Your task to perform on an android device: turn off priority inbox in the gmail app Image 0: 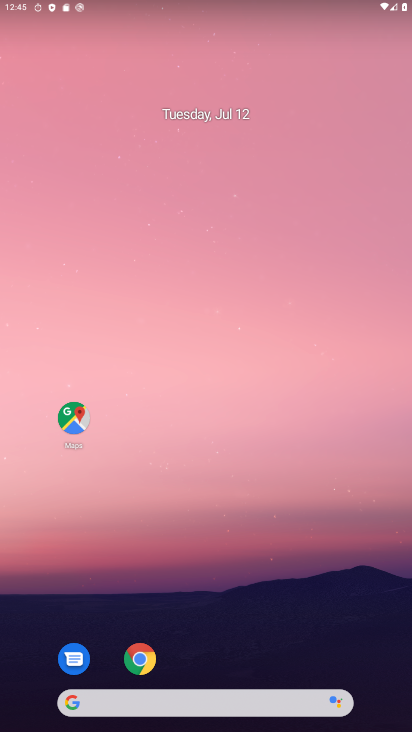
Step 0: drag from (352, 559) to (317, 113)
Your task to perform on an android device: turn off priority inbox in the gmail app Image 1: 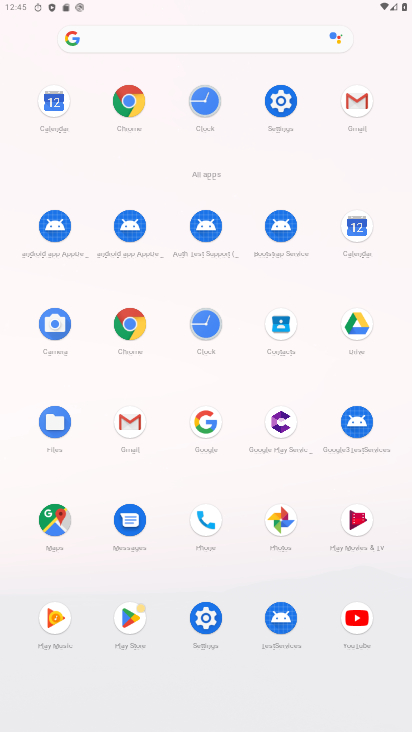
Step 1: click (364, 105)
Your task to perform on an android device: turn off priority inbox in the gmail app Image 2: 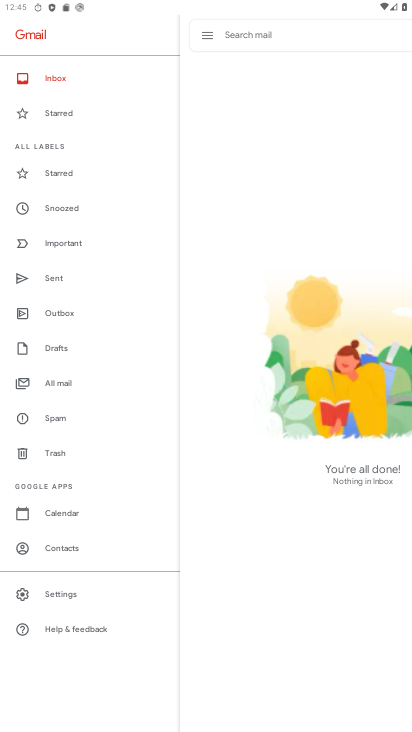
Step 2: click (68, 589)
Your task to perform on an android device: turn off priority inbox in the gmail app Image 3: 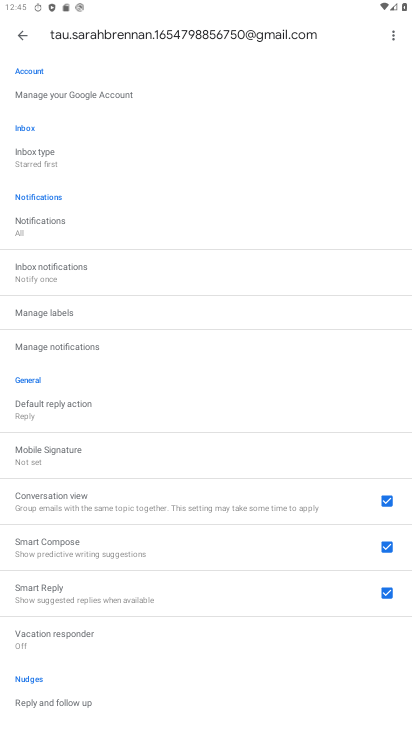
Step 3: click (49, 156)
Your task to perform on an android device: turn off priority inbox in the gmail app Image 4: 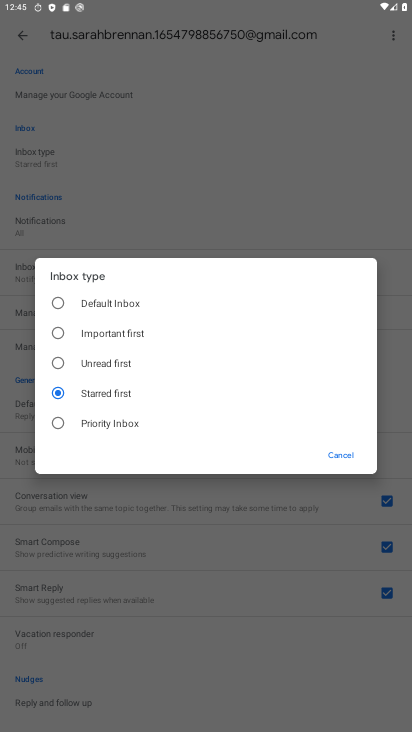
Step 4: task complete